Your task to perform on an android device: Go to network settings Image 0: 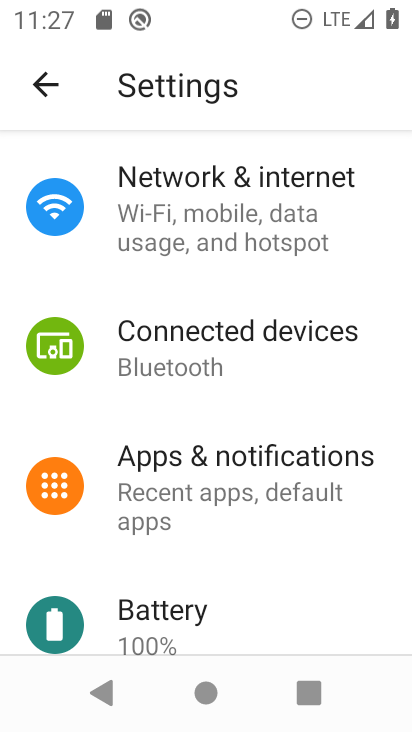
Step 0: press home button
Your task to perform on an android device: Go to network settings Image 1: 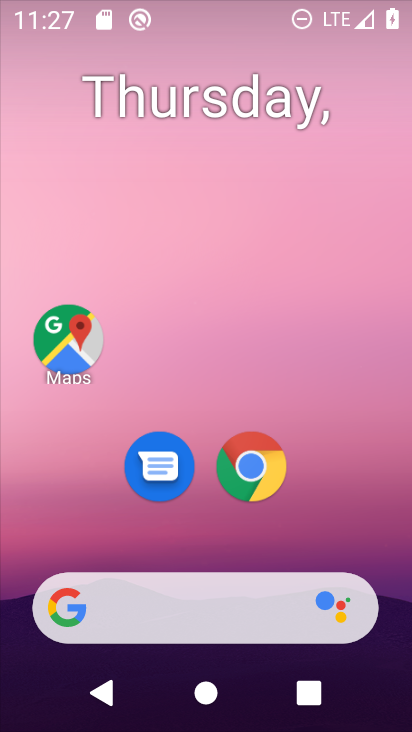
Step 1: drag from (236, 647) to (300, 137)
Your task to perform on an android device: Go to network settings Image 2: 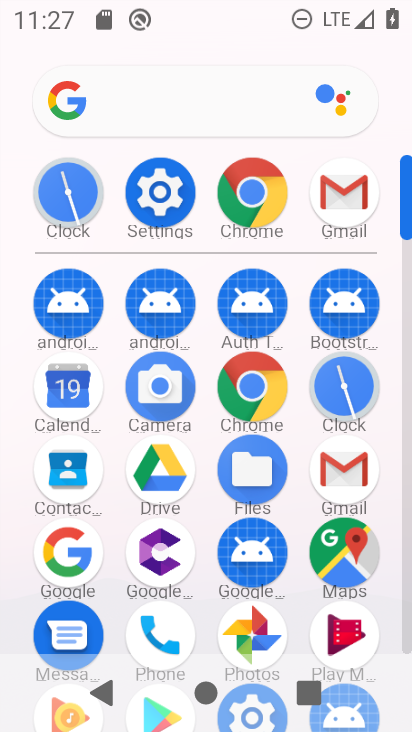
Step 2: click (149, 178)
Your task to perform on an android device: Go to network settings Image 3: 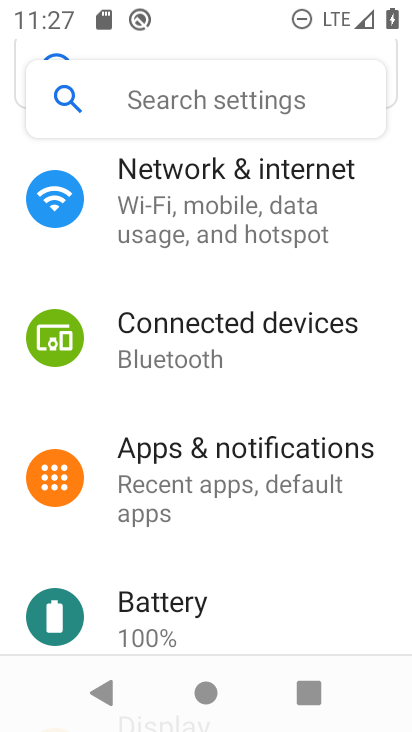
Step 3: click (228, 183)
Your task to perform on an android device: Go to network settings Image 4: 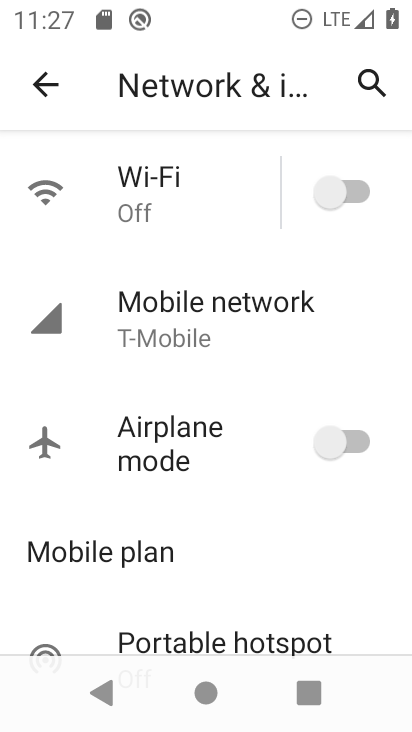
Step 4: task complete